Your task to perform on an android device: change notifications settings Image 0: 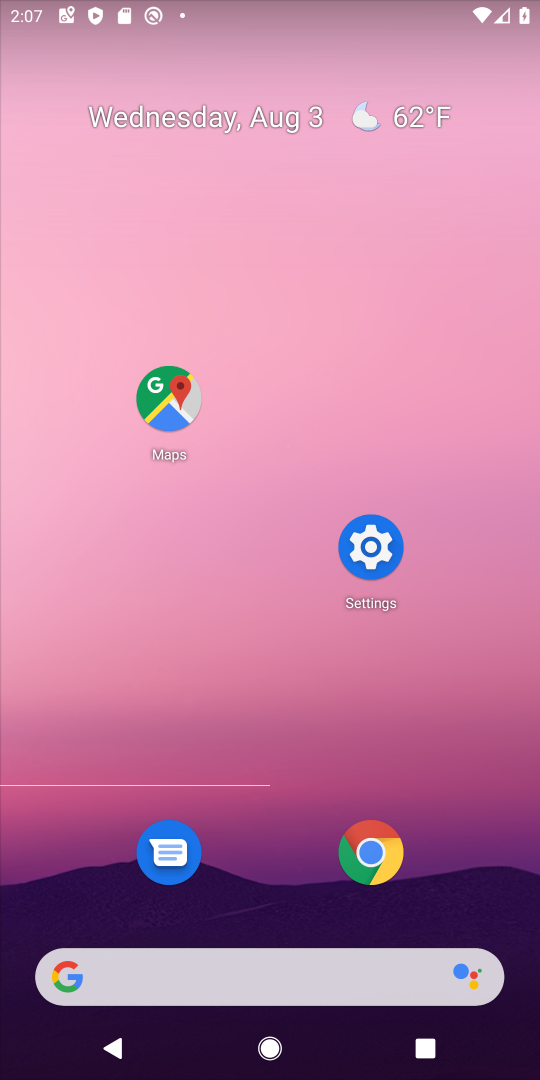
Step 0: press home button
Your task to perform on an android device: change notifications settings Image 1: 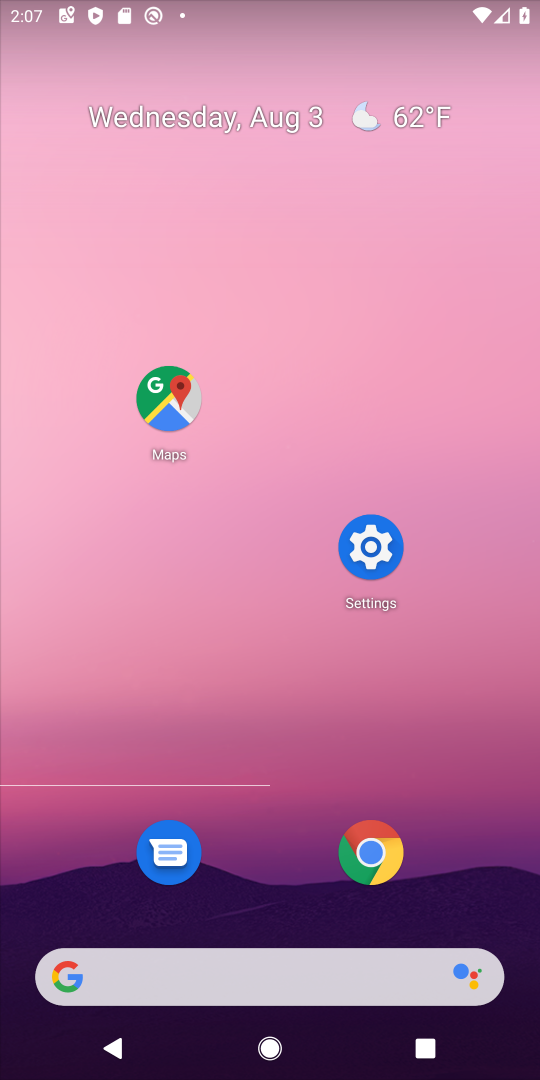
Step 1: click (366, 539)
Your task to perform on an android device: change notifications settings Image 2: 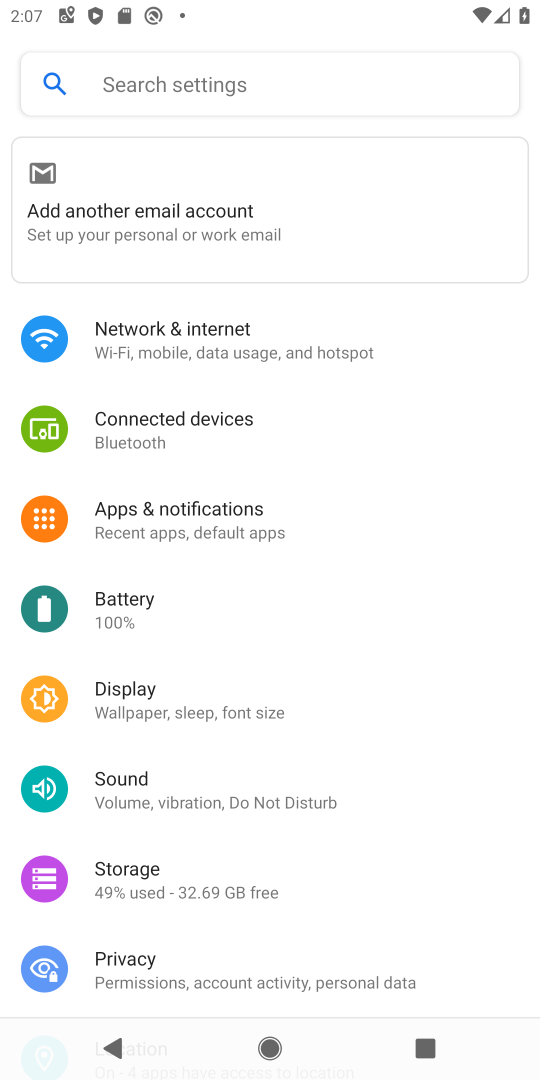
Step 2: click (201, 513)
Your task to perform on an android device: change notifications settings Image 3: 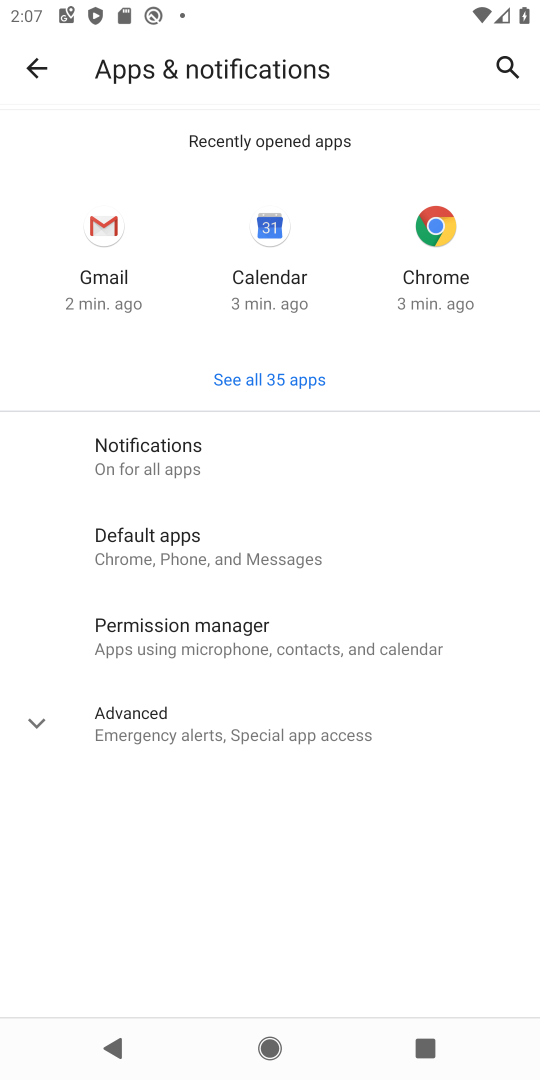
Step 3: click (151, 440)
Your task to perform on an android device: change notifications settings Image 4: 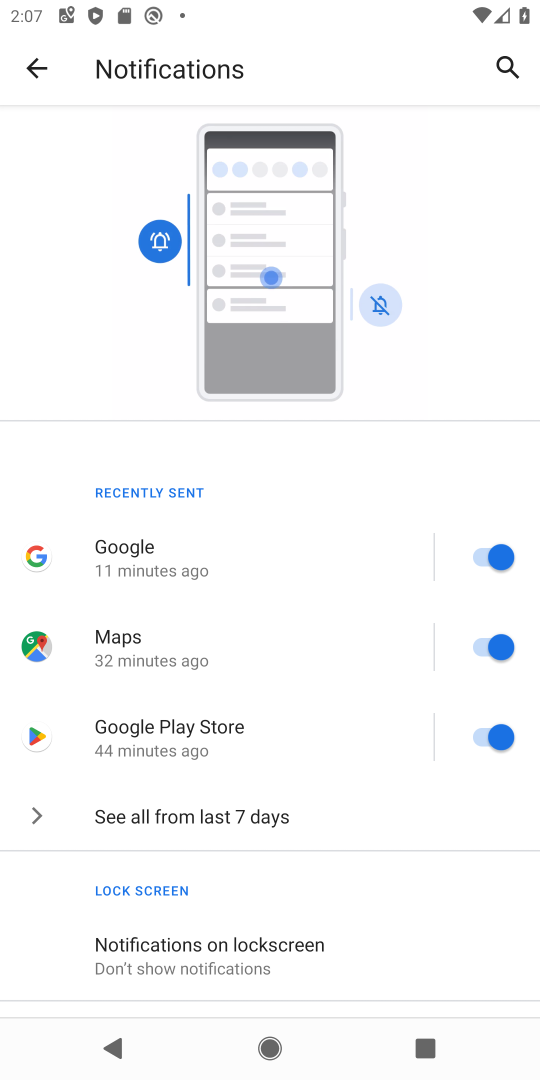
Step 4: drag from (352, 847) to (423, 405)
Your task to perform on an android device: change notifications settings Image 5: 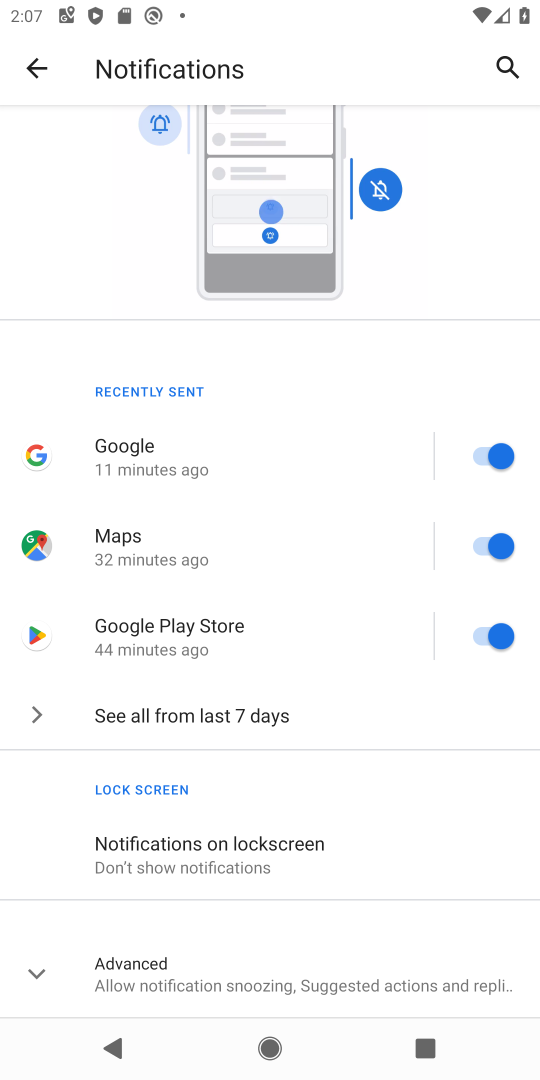
Step 5: click (478, 632)
Your task to perform on an android device: change notifications settings Image 6: 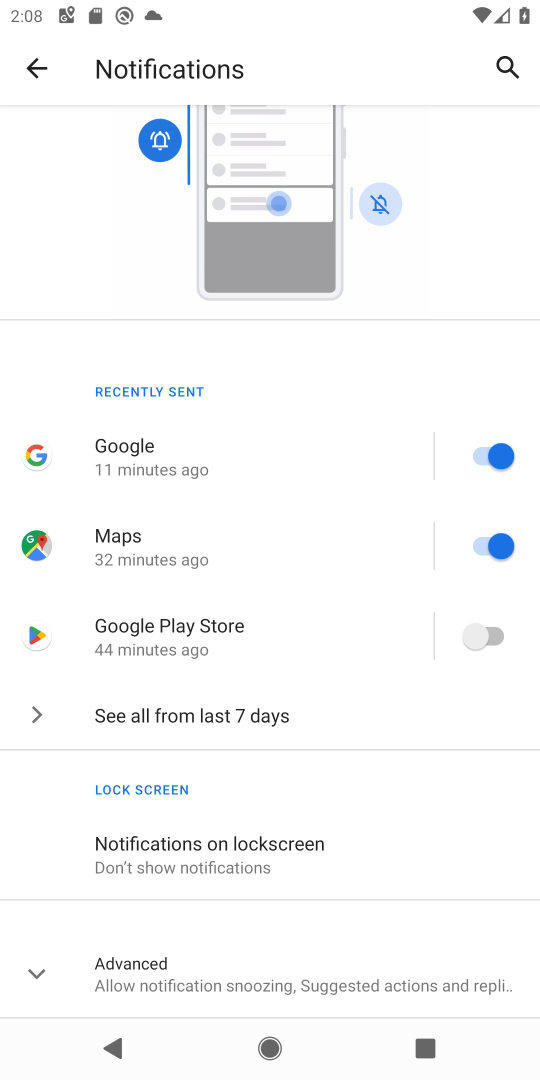
Step 6: task complete